Your task to perform on an android device: What's on my calendar tomorrow? Image 0: 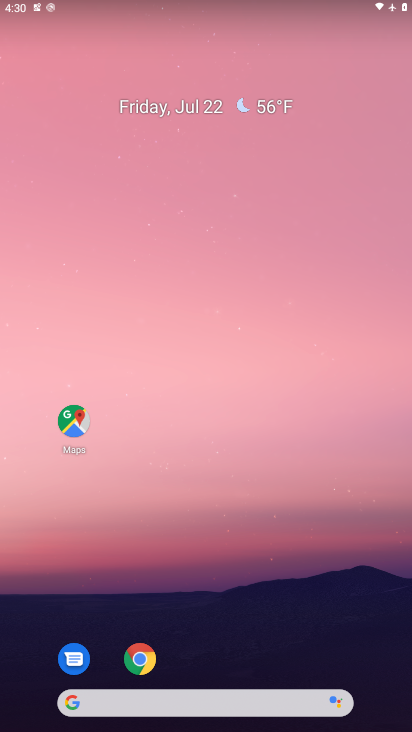
Step 0: drag from (186, 676) to (189, 154)
Your task to perform on an android device: What's on my calendar tomorrow? Image 1: 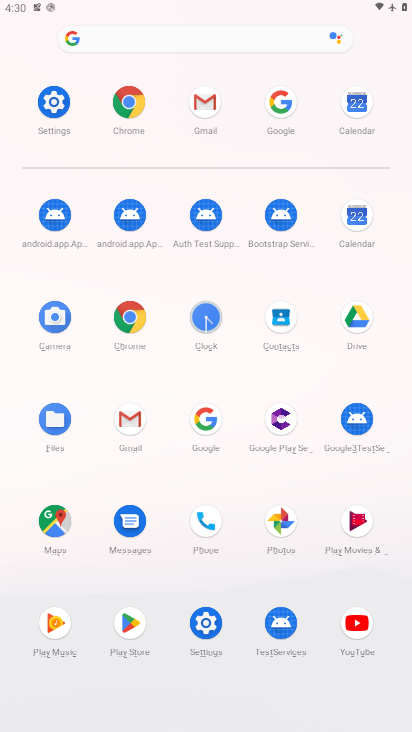
Step 1: click (359, 216)
Your task to perform on an android device: What's on my calendar tomorrow? Image 2: 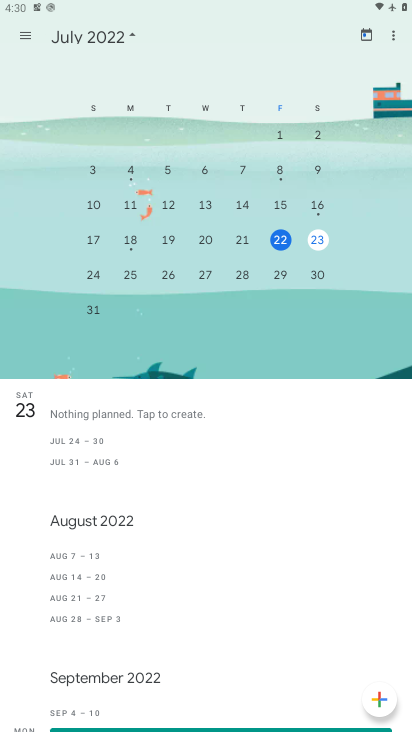
Step 2: click (311, 237)
Your task to perform on an android device: What's on my calendar tomorrow? Image 3: 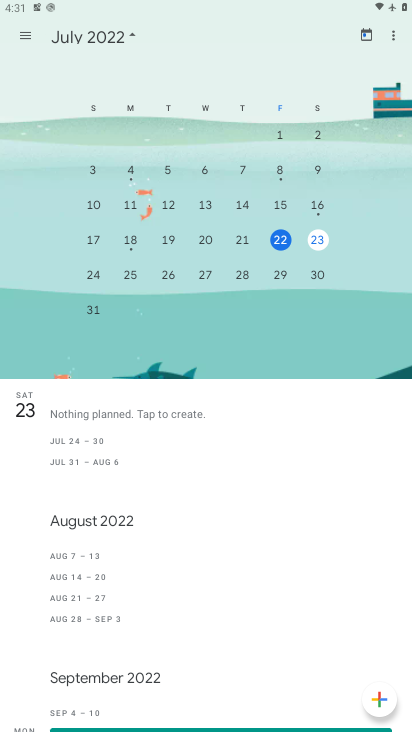
Step 3: task complete